Your task to perform on an android device: Go to calendar. Show me events next week Image 0: 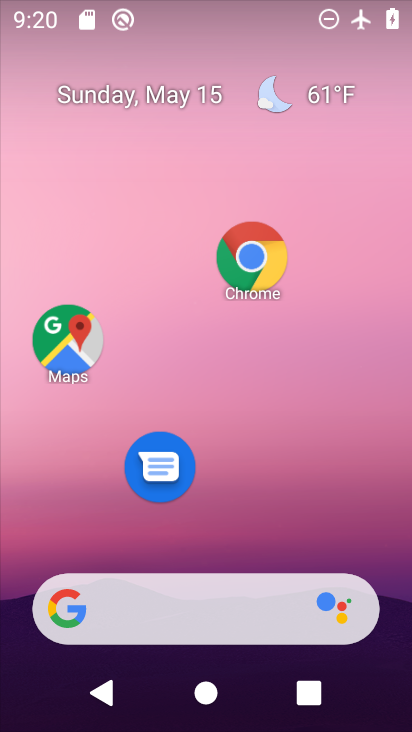
Step 0: click (172, 93)
Your task to perform on an android device: Go to calendar. Show me events next week Image 1: 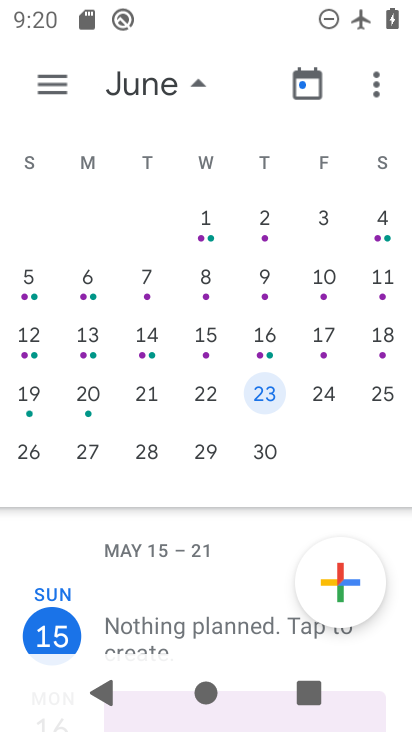
Step 1: click (138, 92)
Your task to perform on an android device: Go to calendar. Show me events next week Image 2: 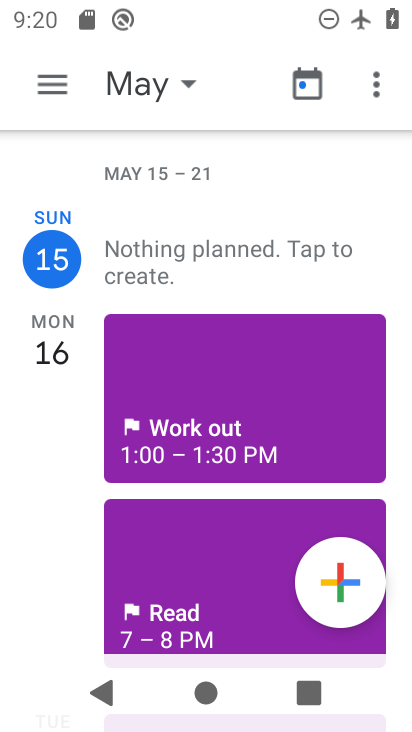
Step 2: task complete